Your task to perform on an android device: Go to wifi settings Image 0: 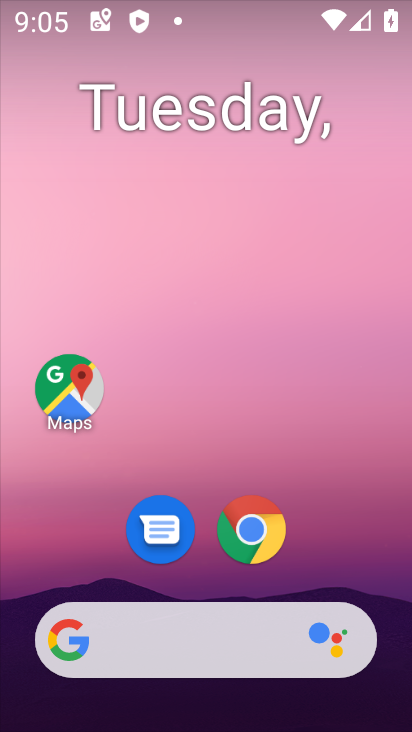
Step 0: drag from (214, 622) to (216, 267)
Your task to perform on an android device: Go to wifi settings Image 1: 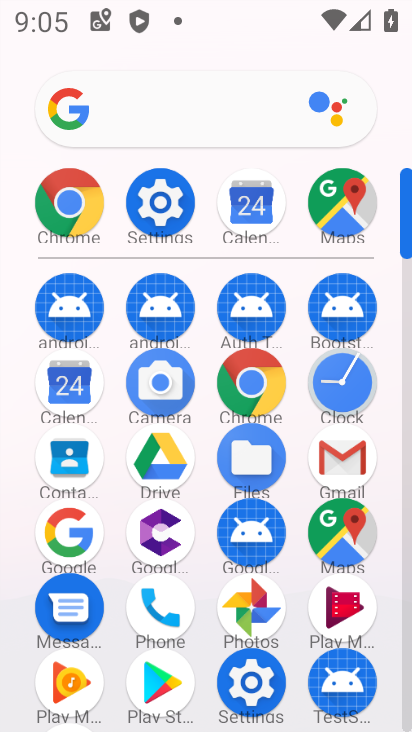
Step 1: click (169, 195)
Your task to perform on an android device: Go to wifi settings Image 2: 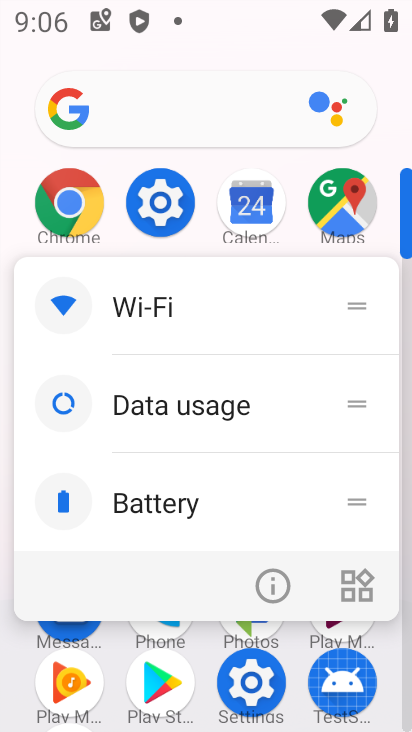
Step 2: click (165, 196)
Your task to perform on an android device: Go to wifi settings Image 3: 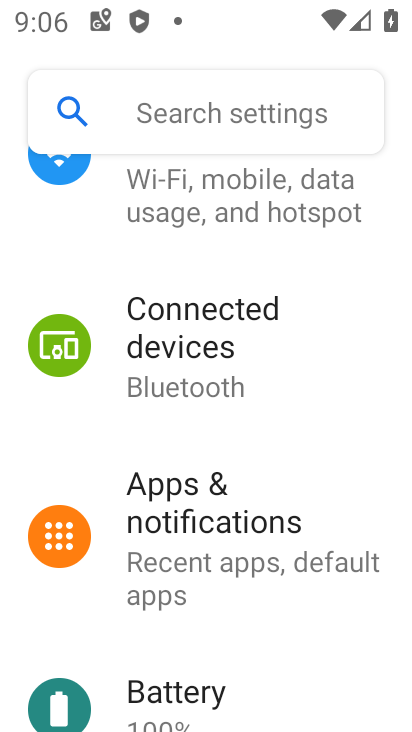
Step 3: drag from (194, 326) to (171, 731)
Your task to perform on an android device: Go to wifi settings Image 4: 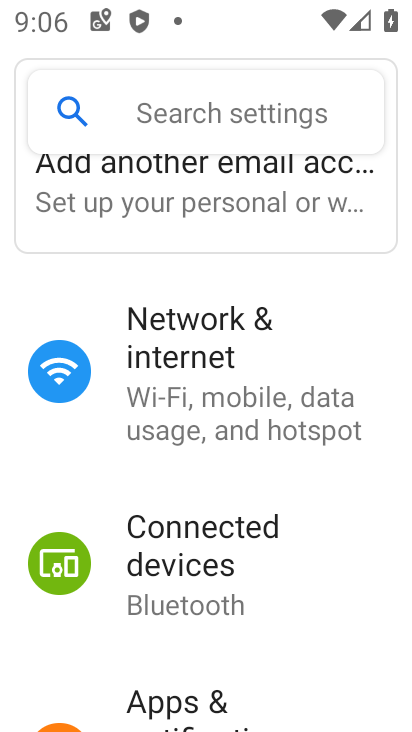
Step 4: click (203, 406)
Your task to perform on an android device: Go to wifi settings Image 5: 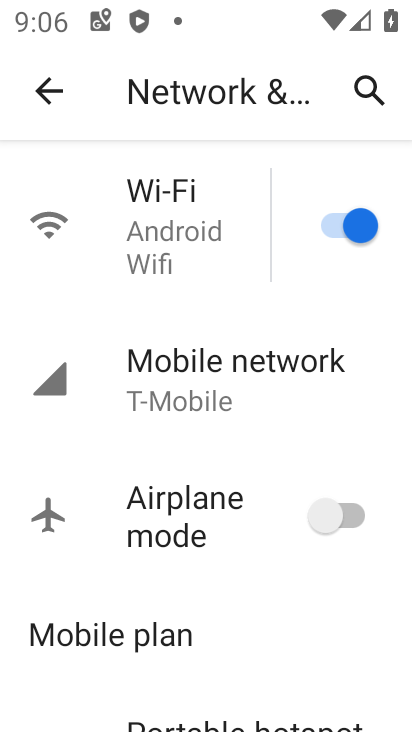
Step 5: click (172, 243)
Your task to perform on an android device: Go to wifi settings Image 6: 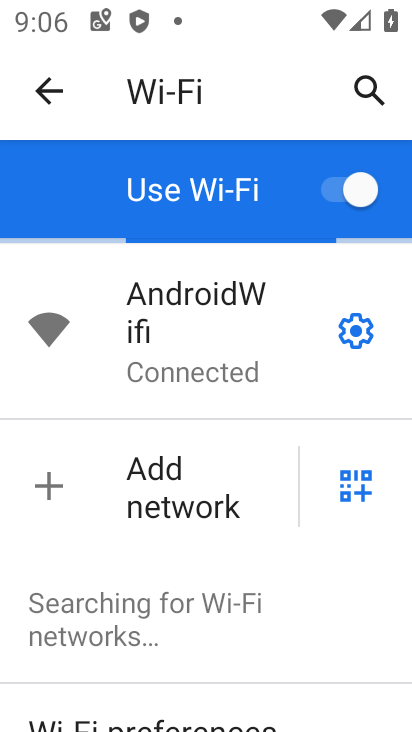
Step 6: task complete